Your task to perform on an android device: Go to Android settings Image 0: 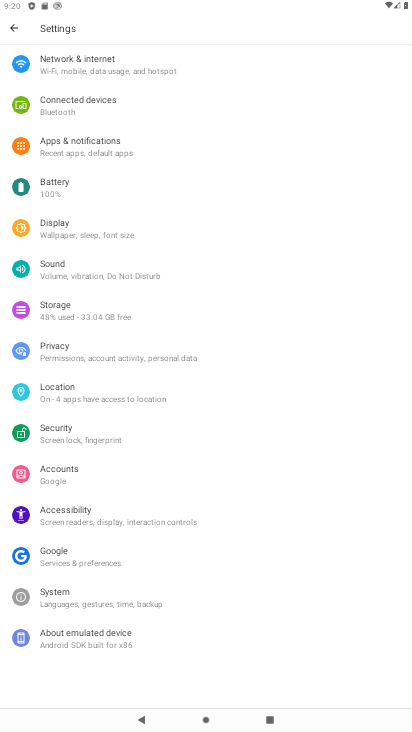
Step 0: click (111, 622)
Your task to perform on an android device: Go to Android settings Image 1: 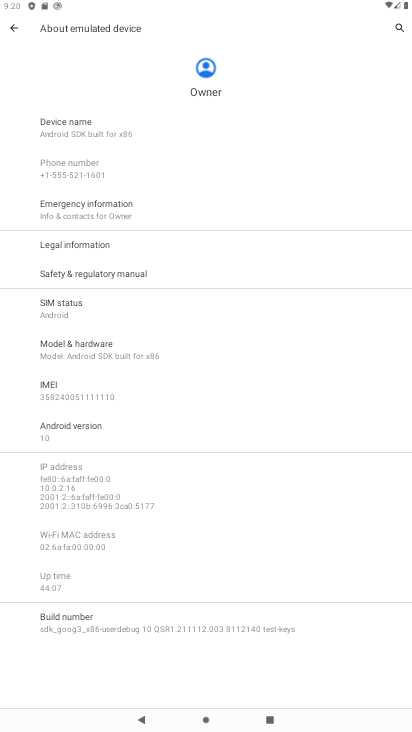
Step 1: click (116, 429)
Your task to perform on an android device: Go to Android settings Image 2: 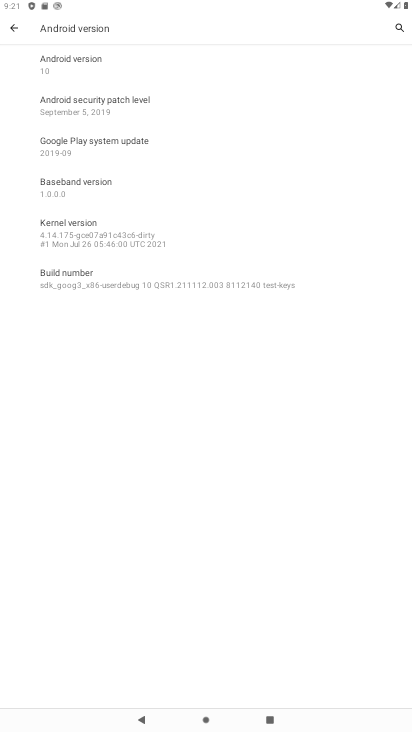
Step 2: task complete